Your task to perform on an android device: Show the shopping cart on ebay.com. Add "acer nitro" to the cart on ebay.com Image 0: 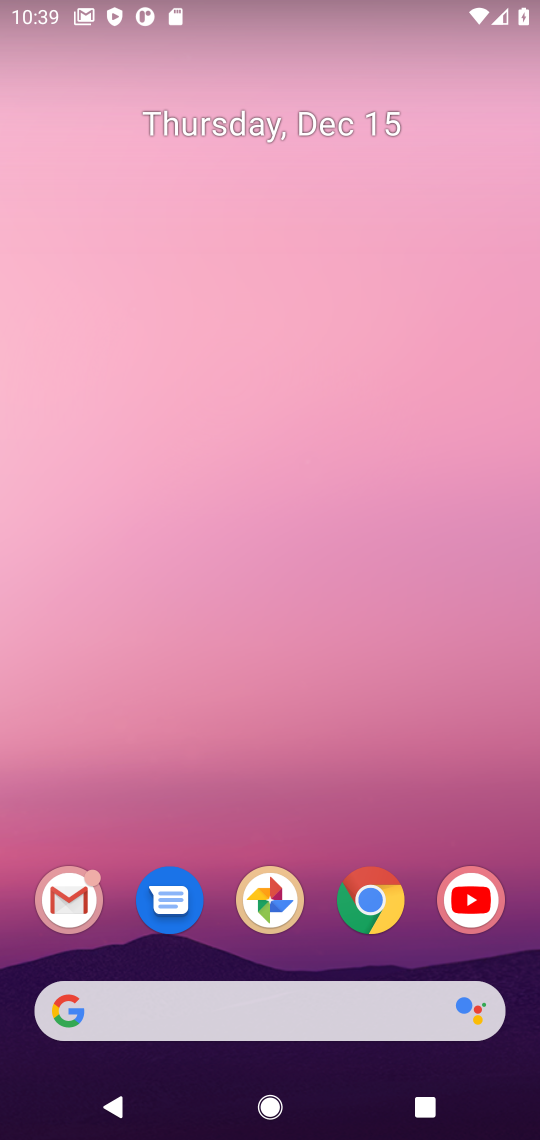
Step 0: click (384, 895)
Your task to perform on an android device: Show the shopping cart on ebay.com. Add "acer nitro" to the cart on ebay.com Image 1: 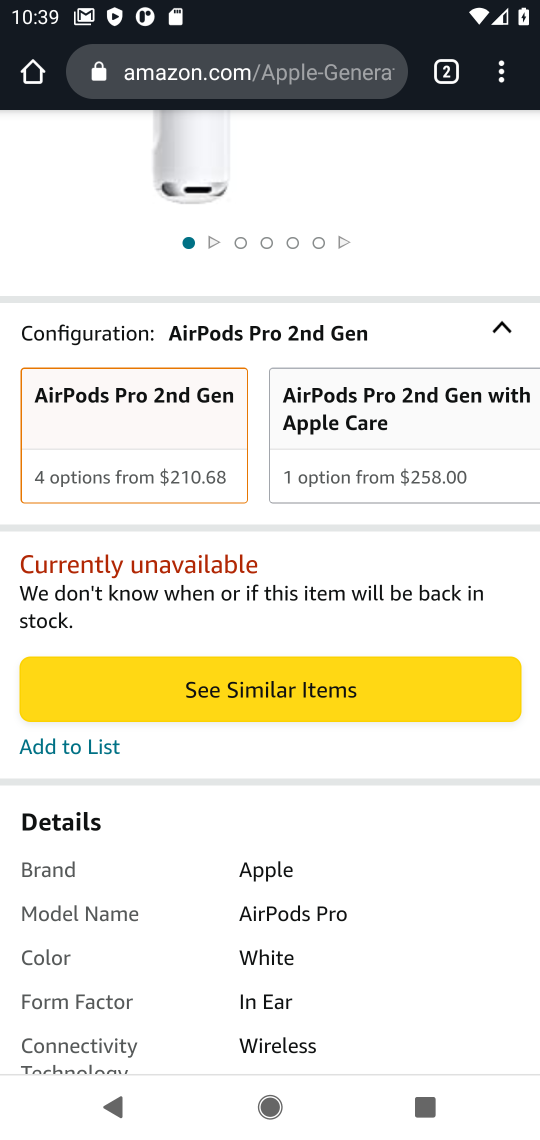
Step 1: click (215, 83)
Your task to perform on an android device: Show the shopping cart on ebay.com. Add "acer nitro" to the cart on ebay.com Image 2: 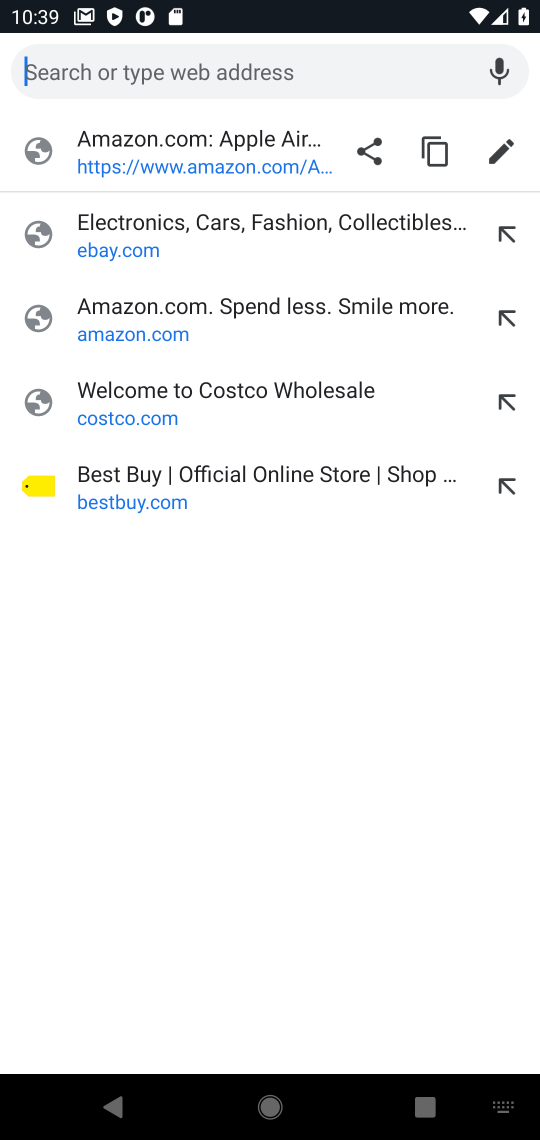
Step 2: type "ebay.com"
Your task to perform on an android device: Show the shopping cart on ebay.com. Add "acer nitro" to the cart on ebay.com Image 3: 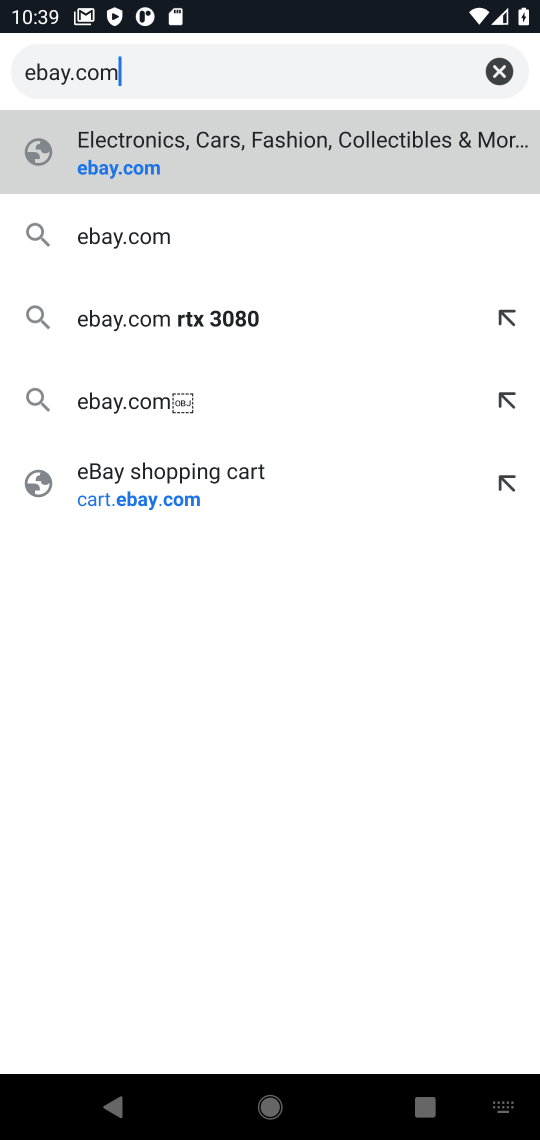
Step 3: click (261, 166)
Your task to perform on an android device: Show the shopping cart on ebay.com. Add "acer nitro" to the cart on ebay.com Image 4: 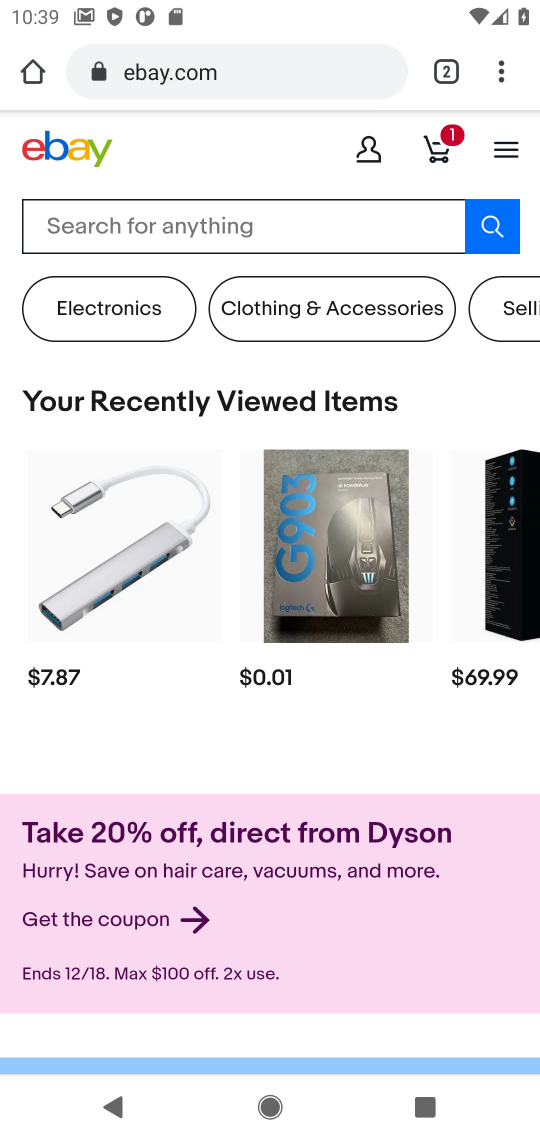
Step 4: click (147, 168)
Your task to perform on an android device: Show the shopping cart on ebay.com. Add "acer nitro" to the cart on ebay.com Image 5: 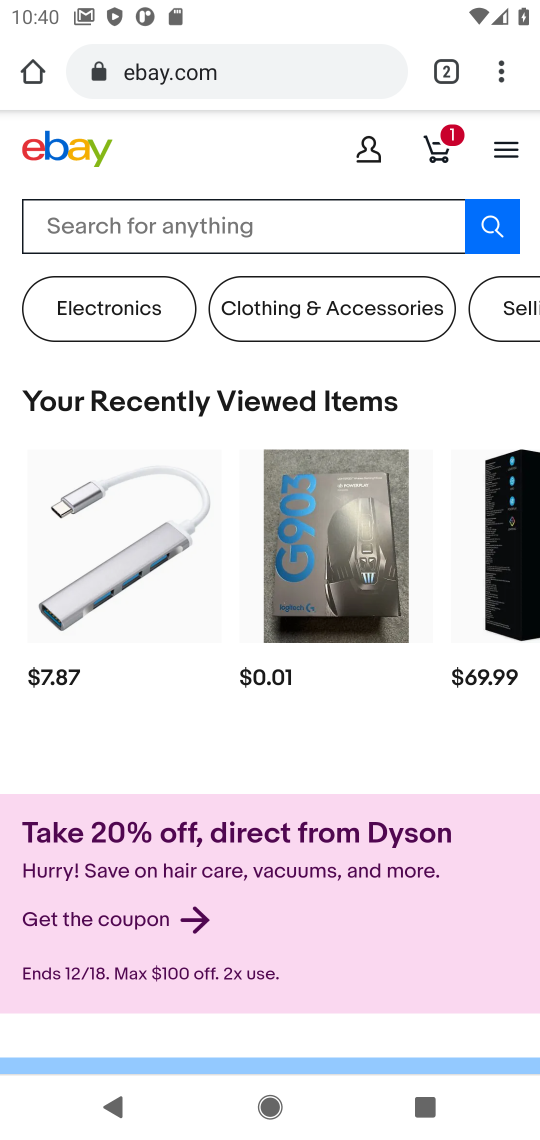
Step 5: click (431, 154)
Your task to perform on an android device: Show the shopping cart on ebay.com. Add "acer nitro" to the cart on ebay.com Image 6: 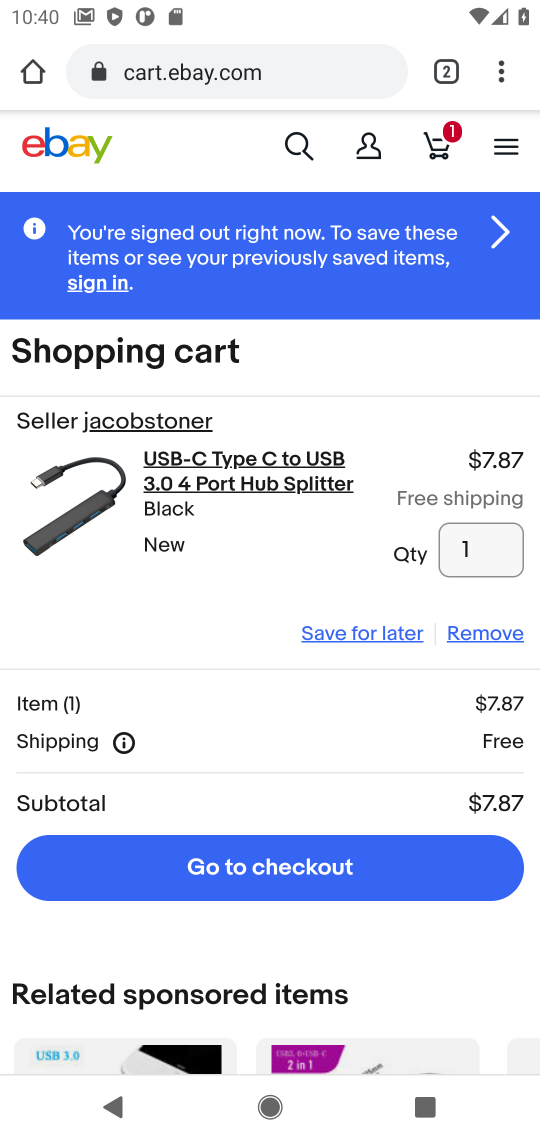
Step 6: click (298, 155)
Your task to perform on an android device: Show the shopping cart on ebay.com. Add "acer nitro" to the cart on ebay.com Image 7: 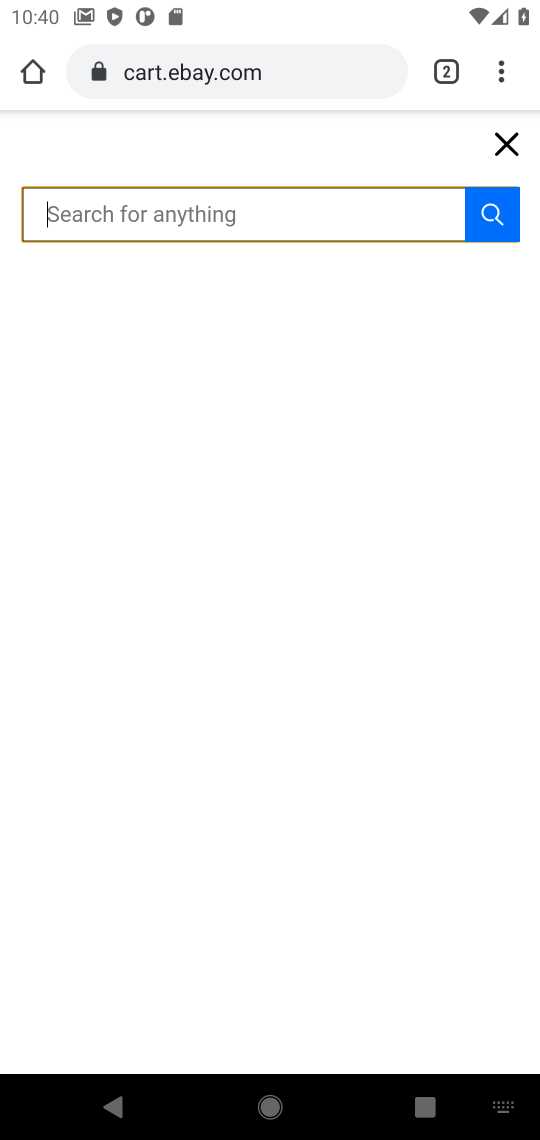
Step 7: type "acer nitro"
Your task to perform on an android device: Show the shopping cart on ebay.com. Add "acer nitro" to the cart on ebay.com Image 8: 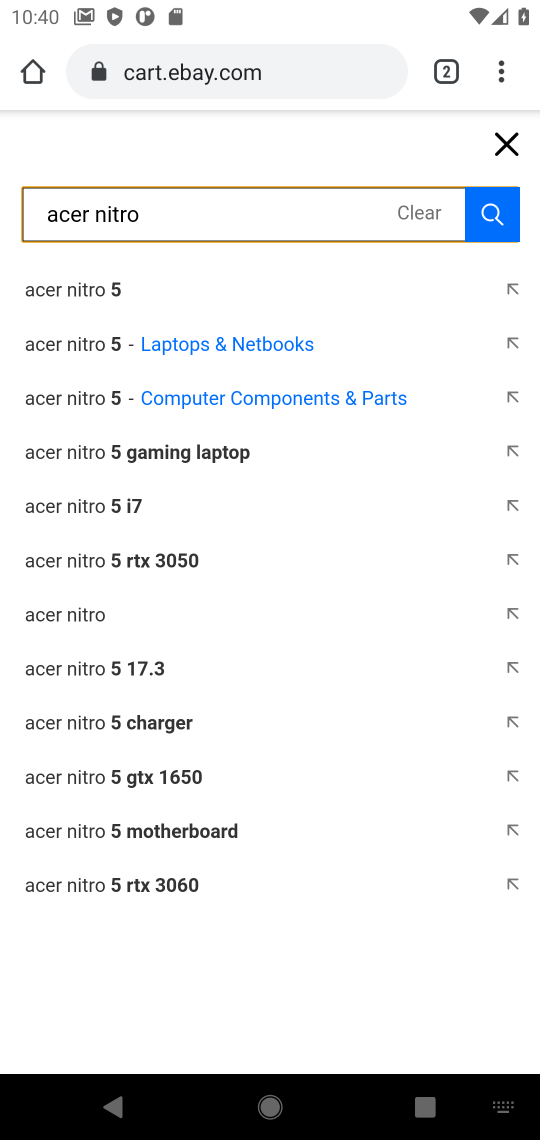
Step 8: click (507, 230)
Your task to perform on an android device: Show the shopping cart on ebay.com. Add "acer nitro" to the cart on ebay.com Image 9: 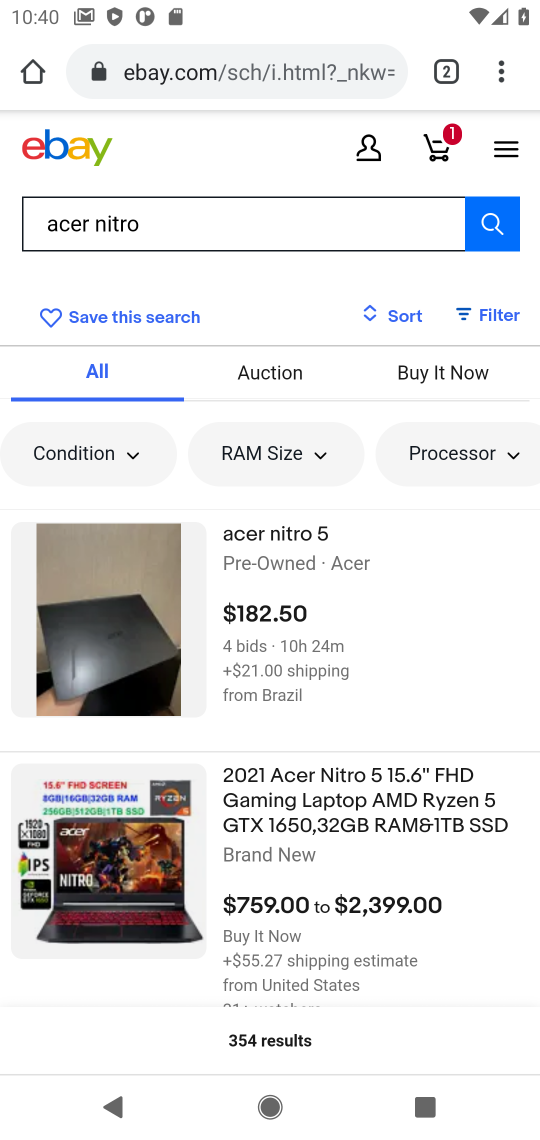
Step 9: click (187, 591)
Your task to perform on an android device: Show the shopping cart on ebay.com. Add "acer nitro" to the cart on ebay.com Image 10: 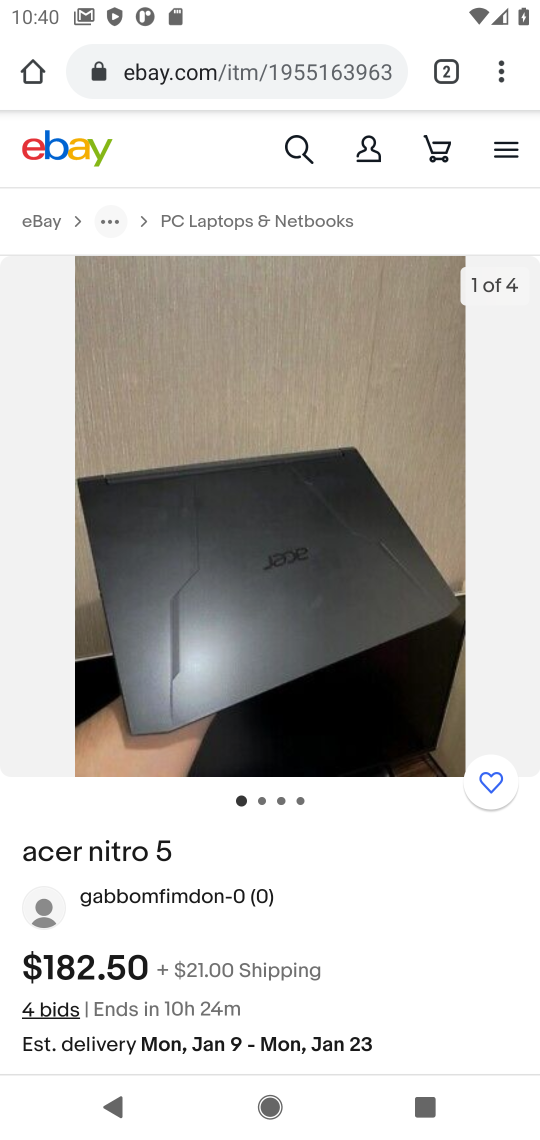
Step 10: drag from (450, 895) to (388, 299)
Your task to perform on an android device: Show the shopping cart on ebay.com. Add "acer nitro" to the cart on ebay.com Image 11: 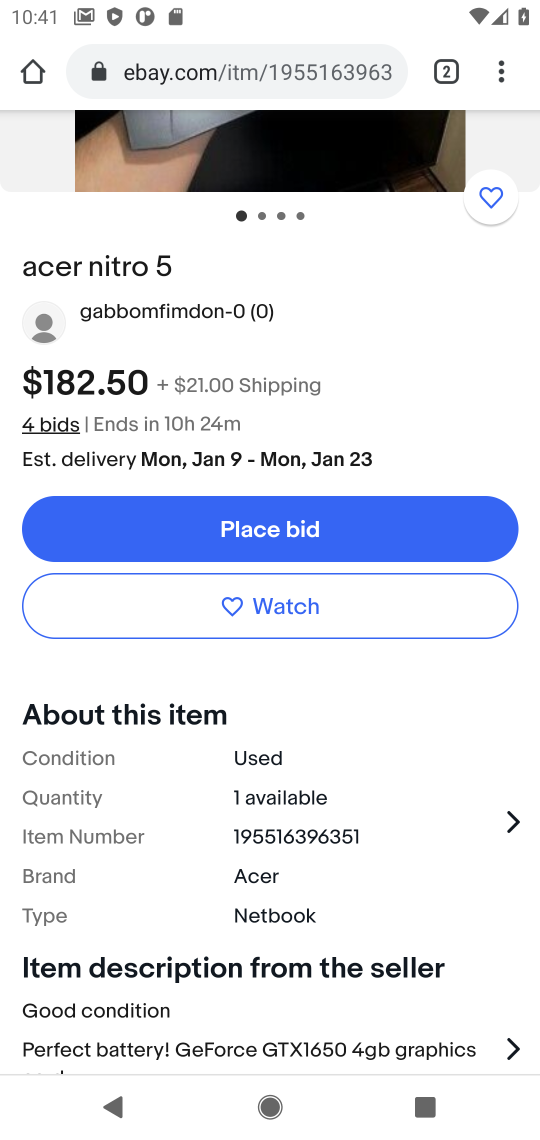
Step 11: press back button
Your task to perform on an android device: Show the shopping cart on ebay.com. Add "acer nitro" to the cart on ebay.com Image 12: 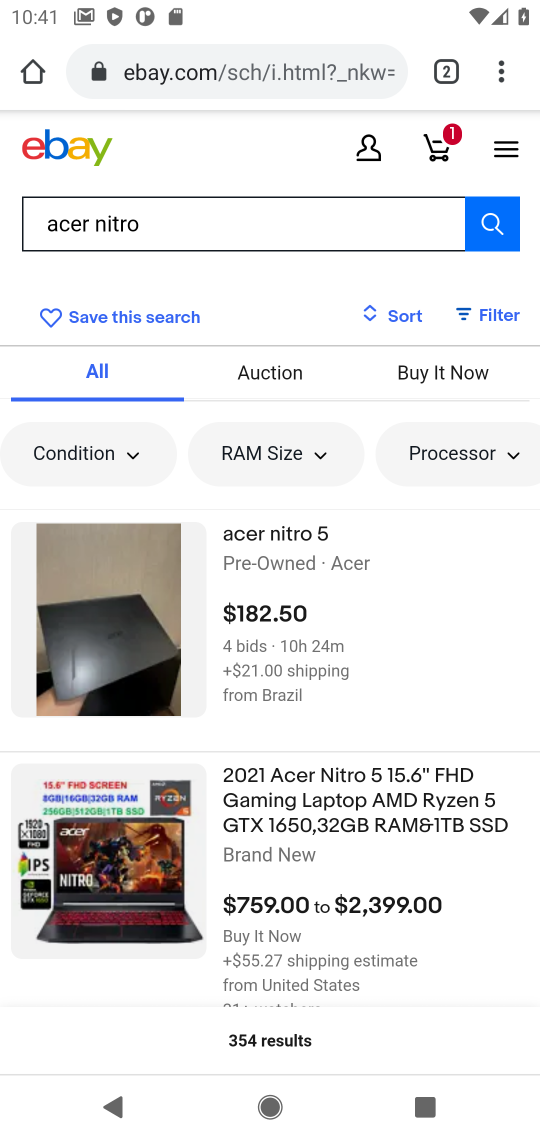
Step 12: click (306, 808)
Your task to perform on an android device: Show the shopping cart on ebay.com. Add "acer nitro" to the cart on ebay.com Image 13: 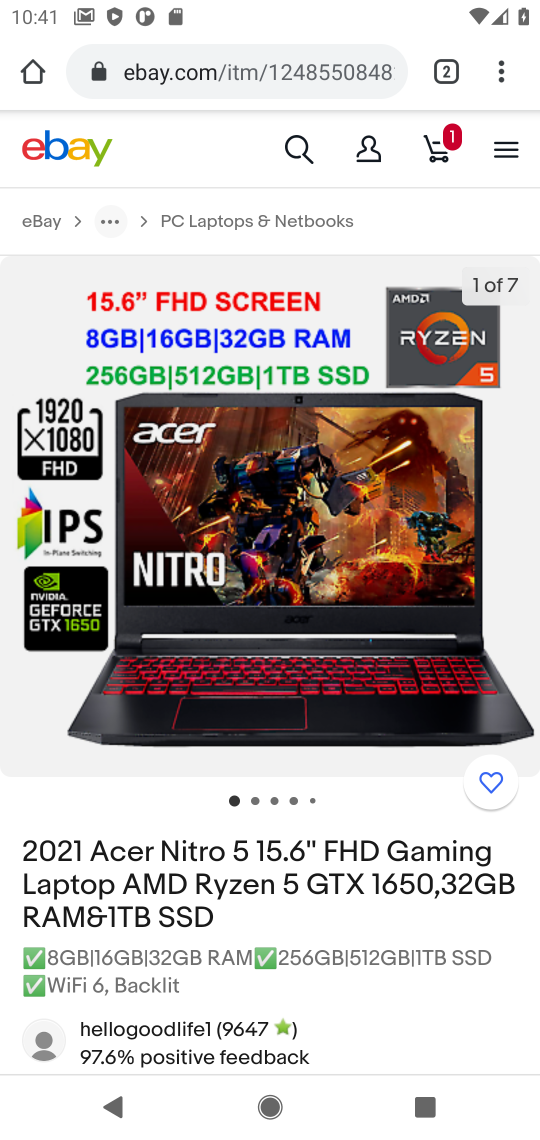
Step 13: drag from (342, 855) to (308, 324)
Your task to perform on an android device: Show the shopping cart on ebay.com. Add "acer nitro" to the cart on ebay.com Image 14: 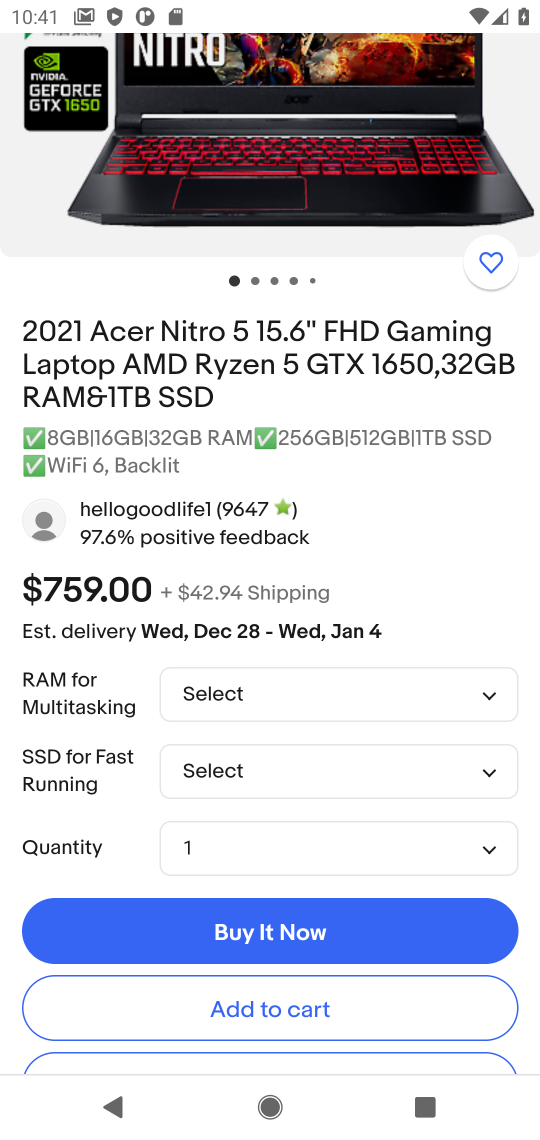
Step 14: click (246, 693)
Your task to perform on an android device: Show the shopping cart on ebay.com. Add "acer nitro" to the cart on ebay.com Image 15: 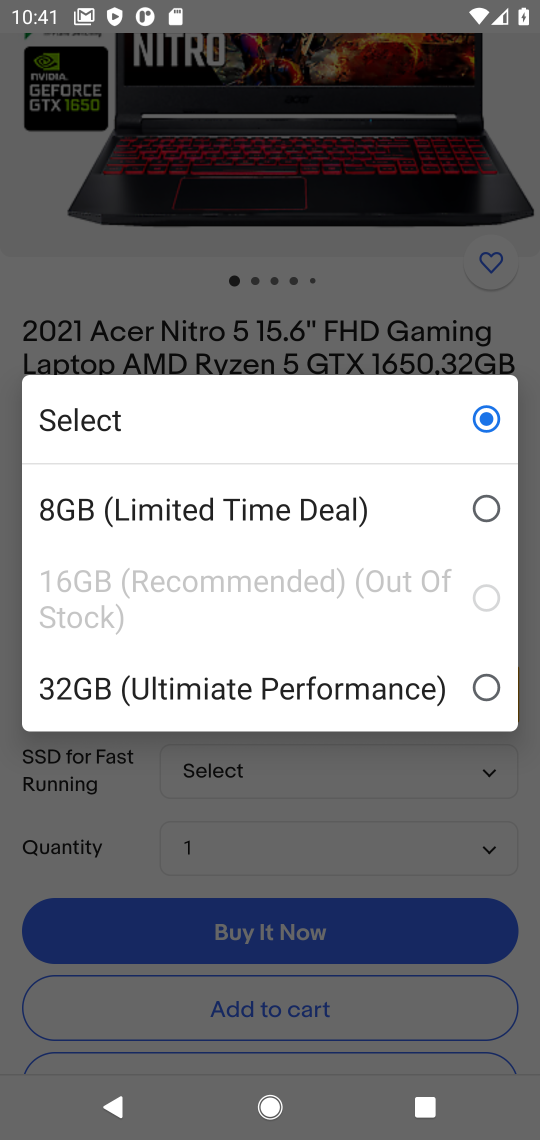
Step 15: click (249, 511)
Your task to perform on an android device: Show the shopping cart on ebay.com. Add "acer nitro" to the cart on ebay.com Image 16: 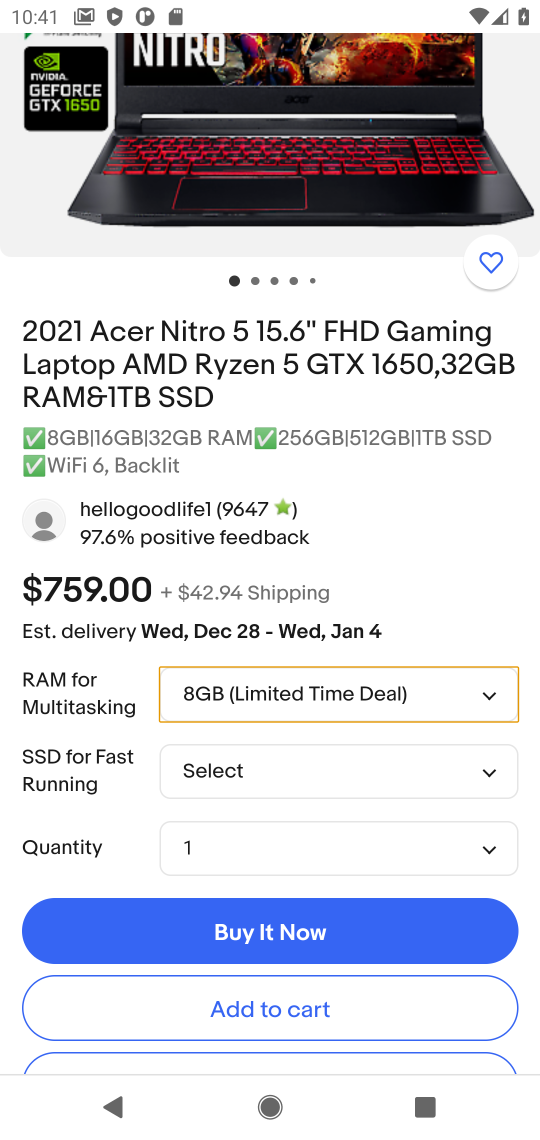
Step 16: click (224, 782)
Your task to perform on an android device: Show the shopping cart on ebay.com. Add "acer nitro" to the cart on ebay.com Image 17: 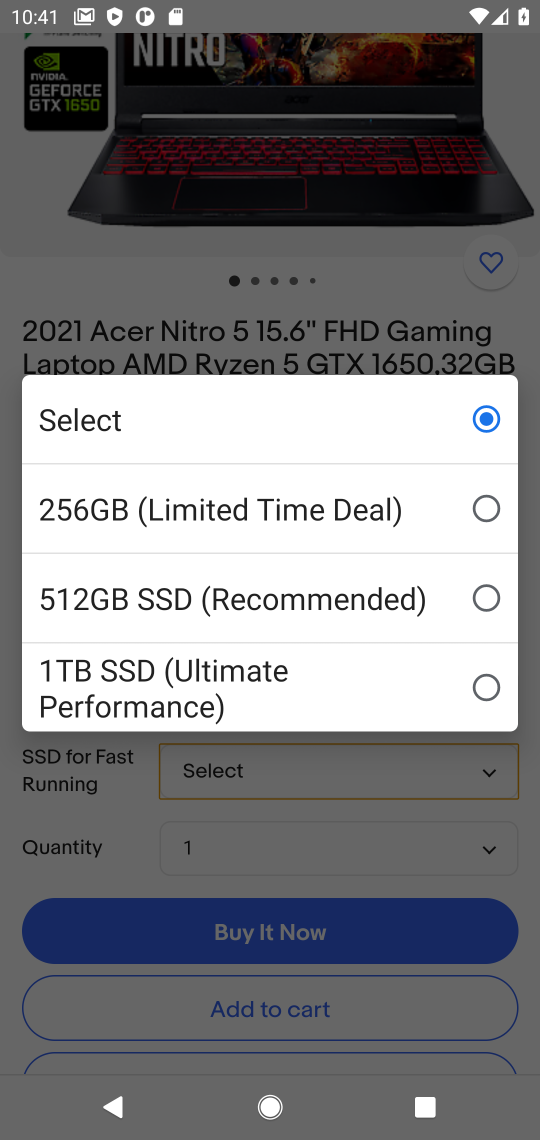
Step 17: click (298, 515)
Your task to perform on an android device: Show the shopping cart on ebay.com. Add "acer nitro" to the cart on ebay.com Image 18: 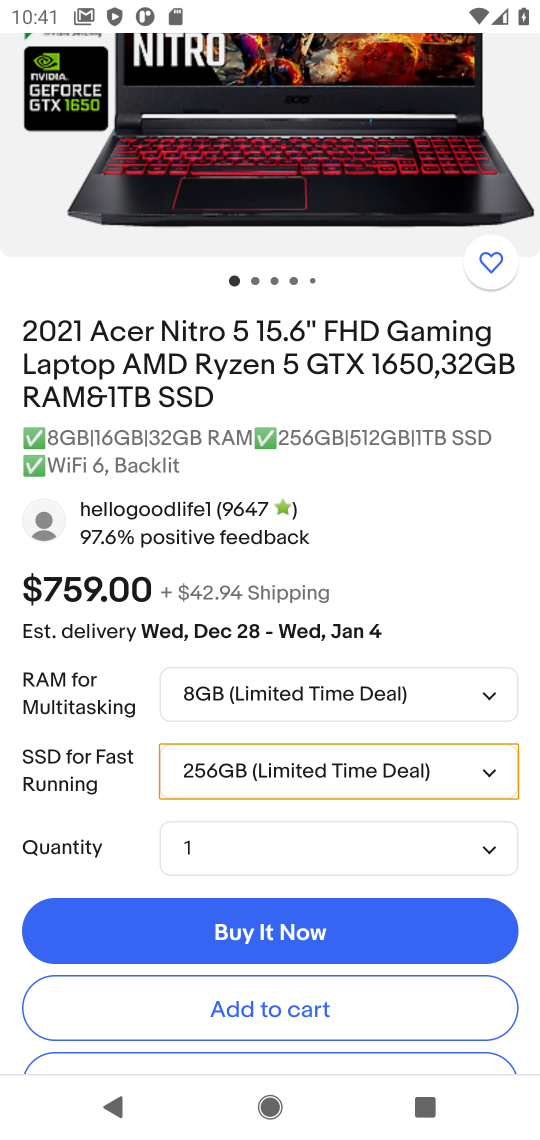
Step 18: click (244, 1019)
Your task to perform on an android device: Show the shopping cart on ebay.com. Add "acer nitro" to the cart on ebay.com Image 19: 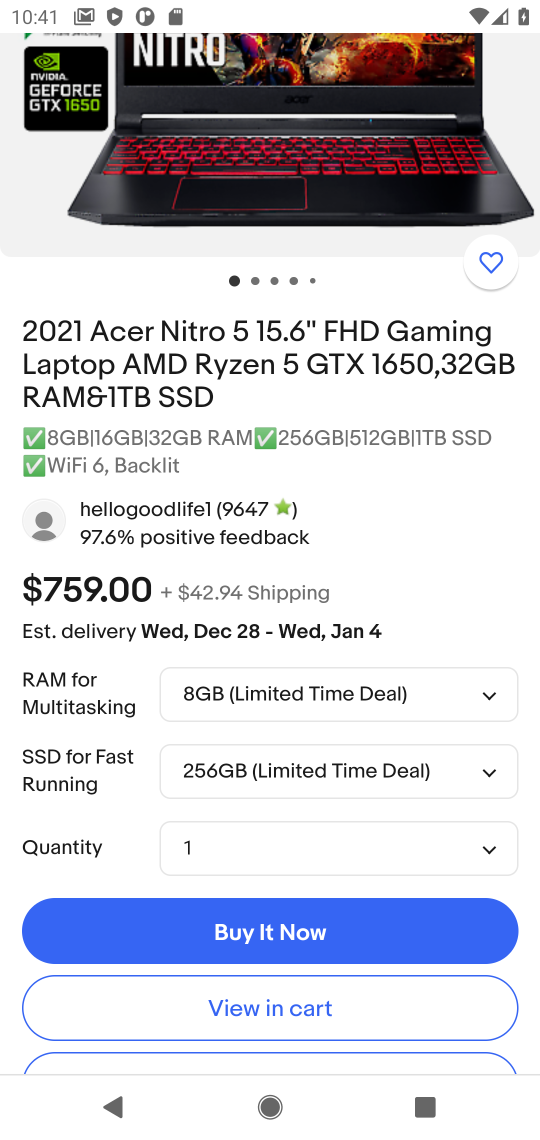
Step 19: click (244, 1019)
Your task to perform on an android device: Show the shopping cart on ebay.com. Add "acer nitro" to the cart on ebay.com Image 20: 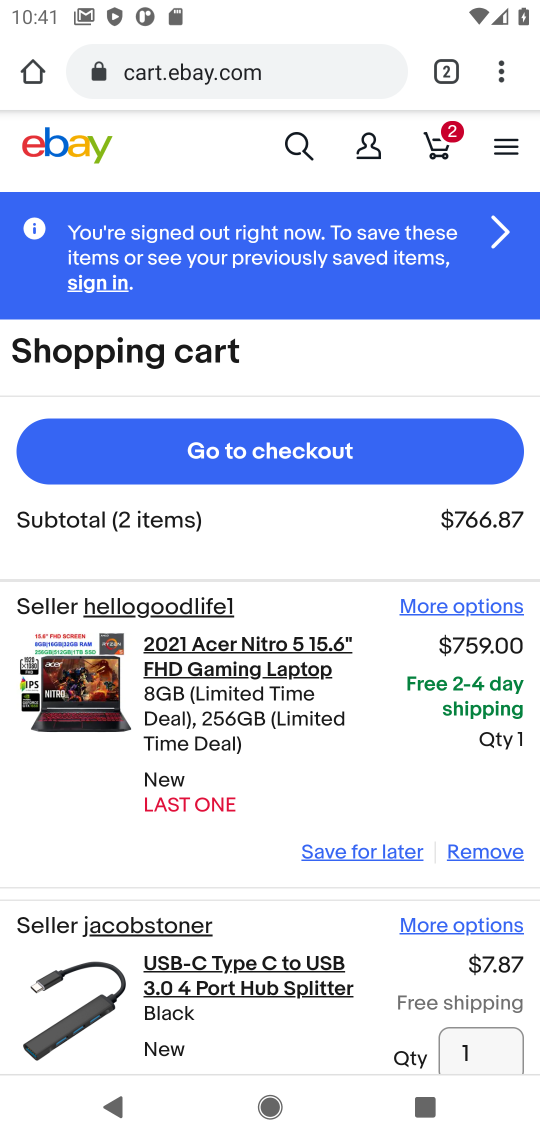
Step 20: click (287, 439)
Your task to perform on an android device: Show the shopping cart on ebay.com. Add "acer nitro" to the cart on ebay.com Image 21: 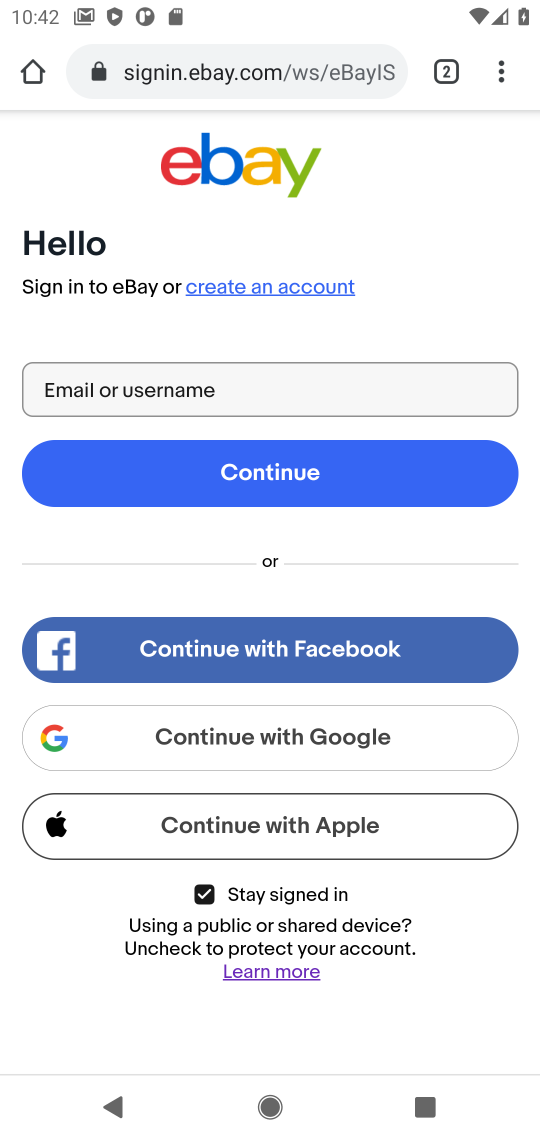
Step 21: task complete